Your task to perform on an android device: Search for razer kraken on newegg, select the first entry, add it to the cart, then select checkout. Image 0: 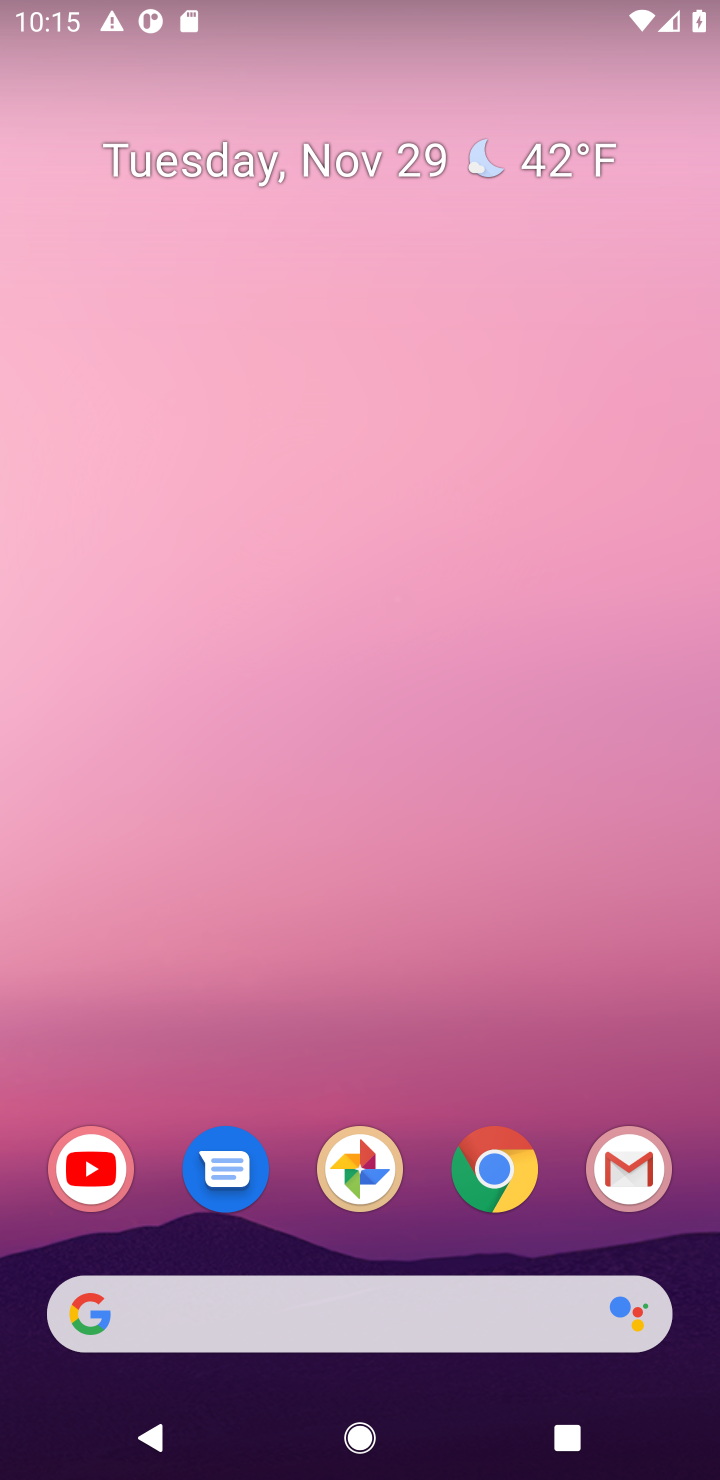
Step 0: click (324, 1324)
Your task to perform on an android device: Search for razer kraken on newegg, select the first entry, add it to the cart, then select checkout. Image 1: 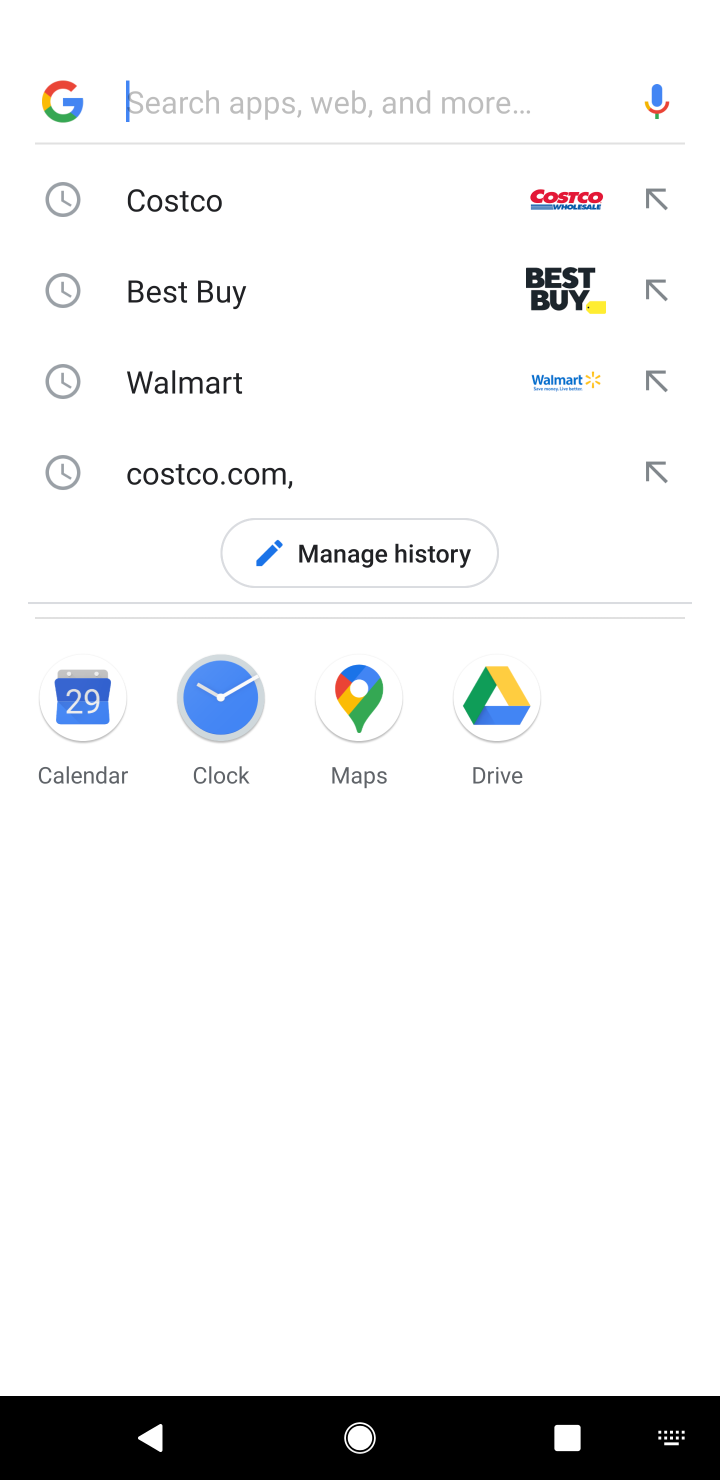
Step 1: type "newegg.com"
Your task to perform on an android device: Search for razer kraken on newegg, select the first entry, add it to the cart, then select checkout. Image 2: 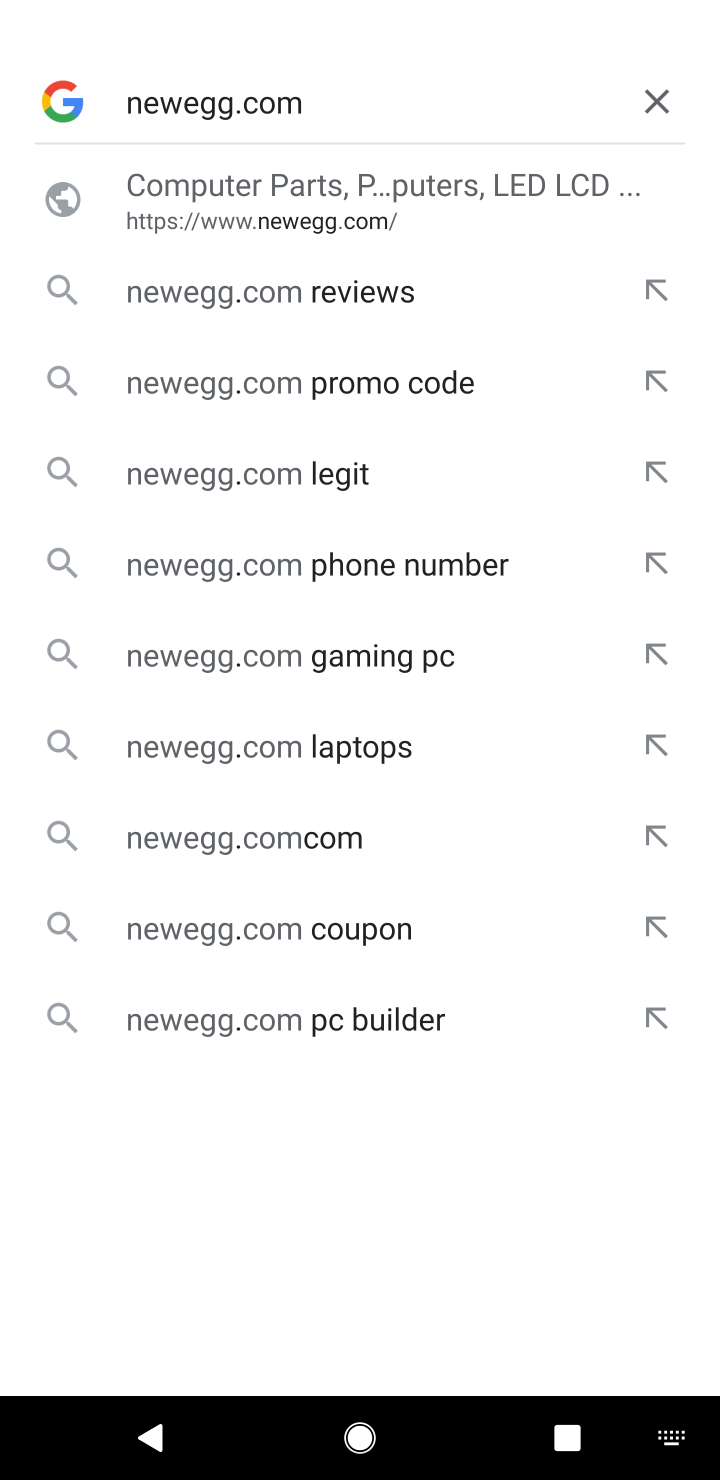
Step 2: click (255, 241)
Your task to perform on an android device: Search for razer kraken on newegg, select the first entry, add it to the cart, then select checkout. Image 3: 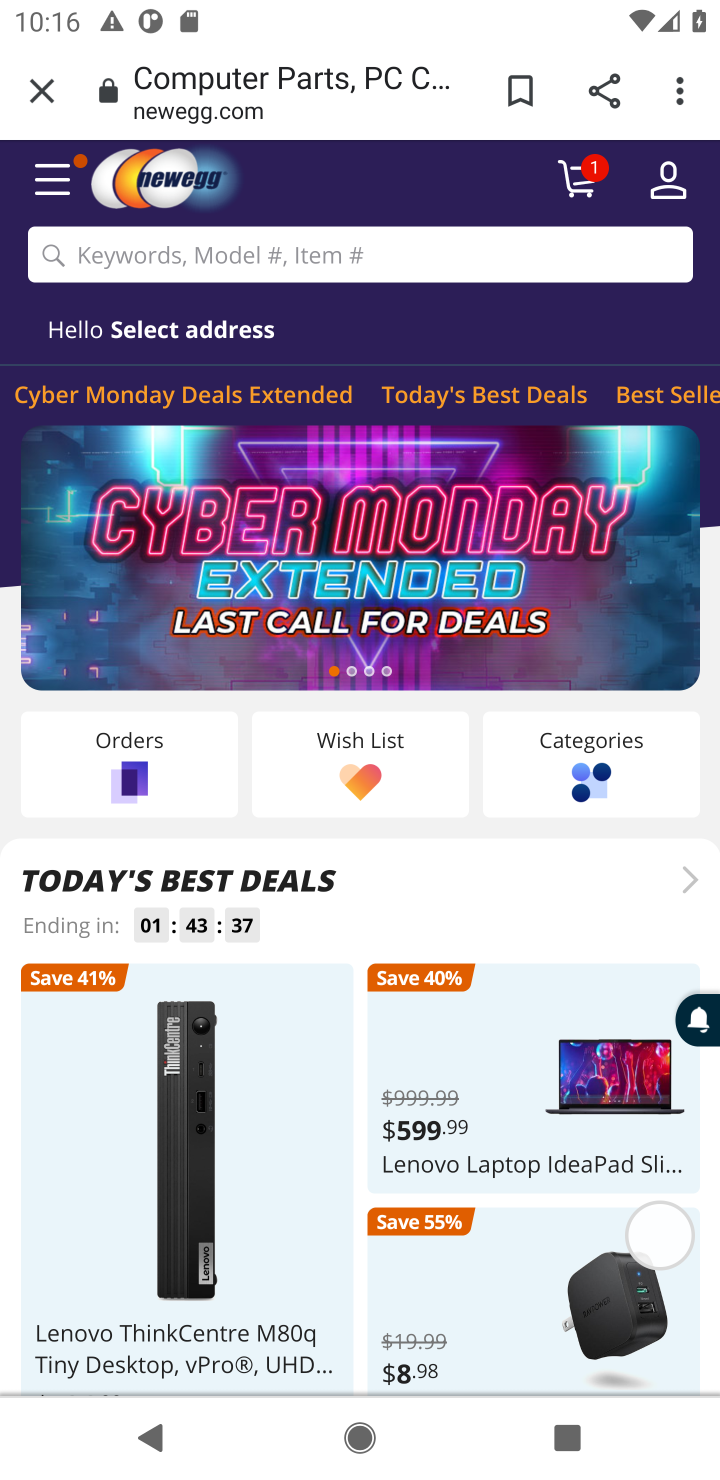
Step 3: click (255, 241)
Your task to perform on an android device: Search for razer kraken on newegg, select the first entry, add it to the cart, then select checkout. Image 4: 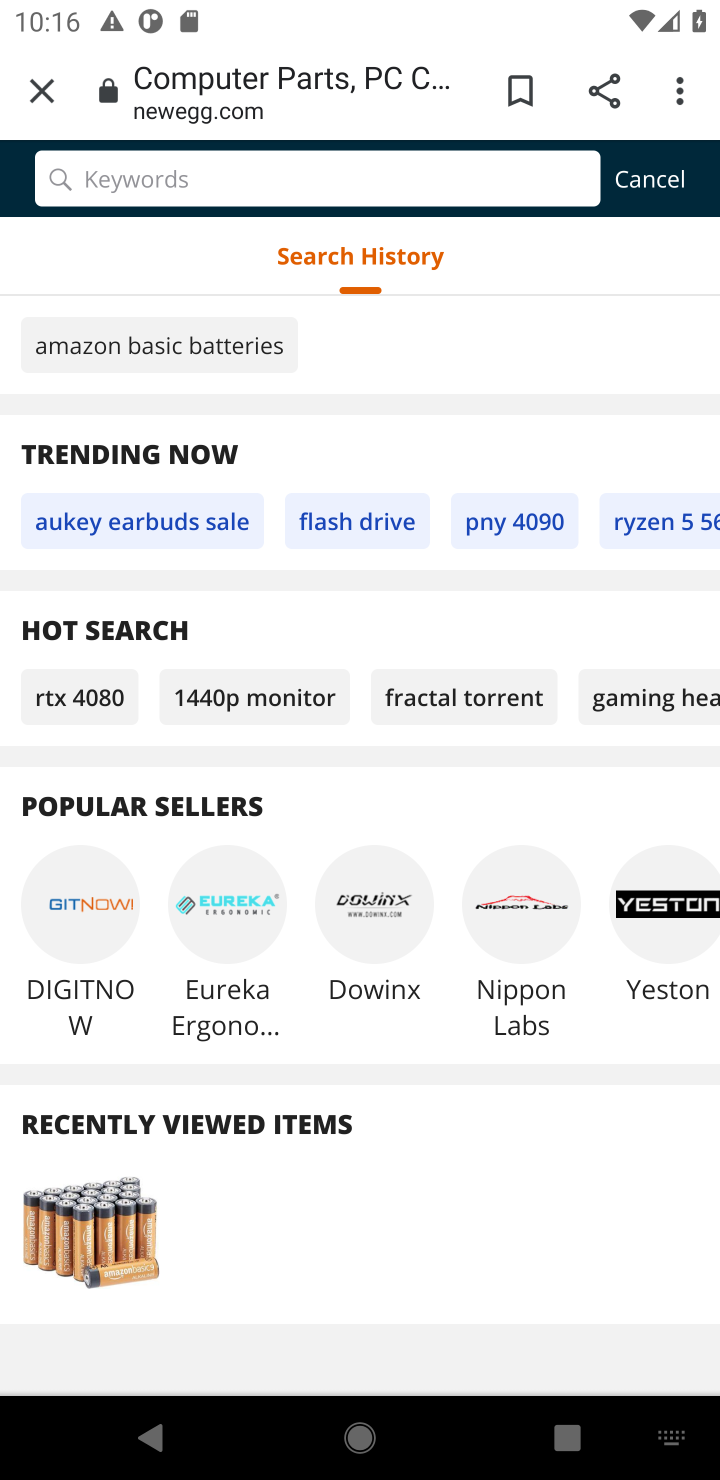
Step 4: type "razer karken"
Your task to perform on an android device: Search for razer kraken on newegg, select the first entry, add it to the cart, then select checkout. Image 5: 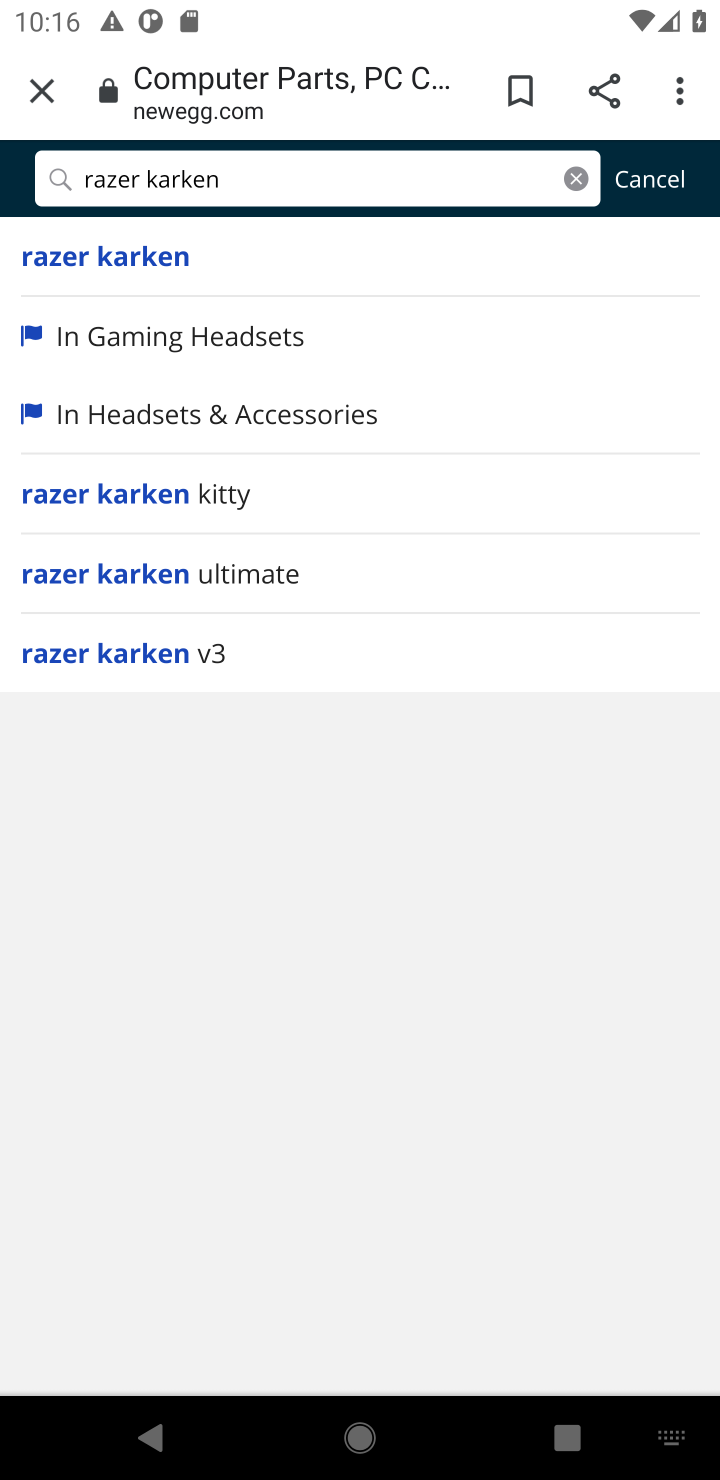
Step 5: click (157, 263)
Your task to perform on an android device: Search for razer kraken on newegg, select the first entry, add it to the cart, then select checkout. Image 6: 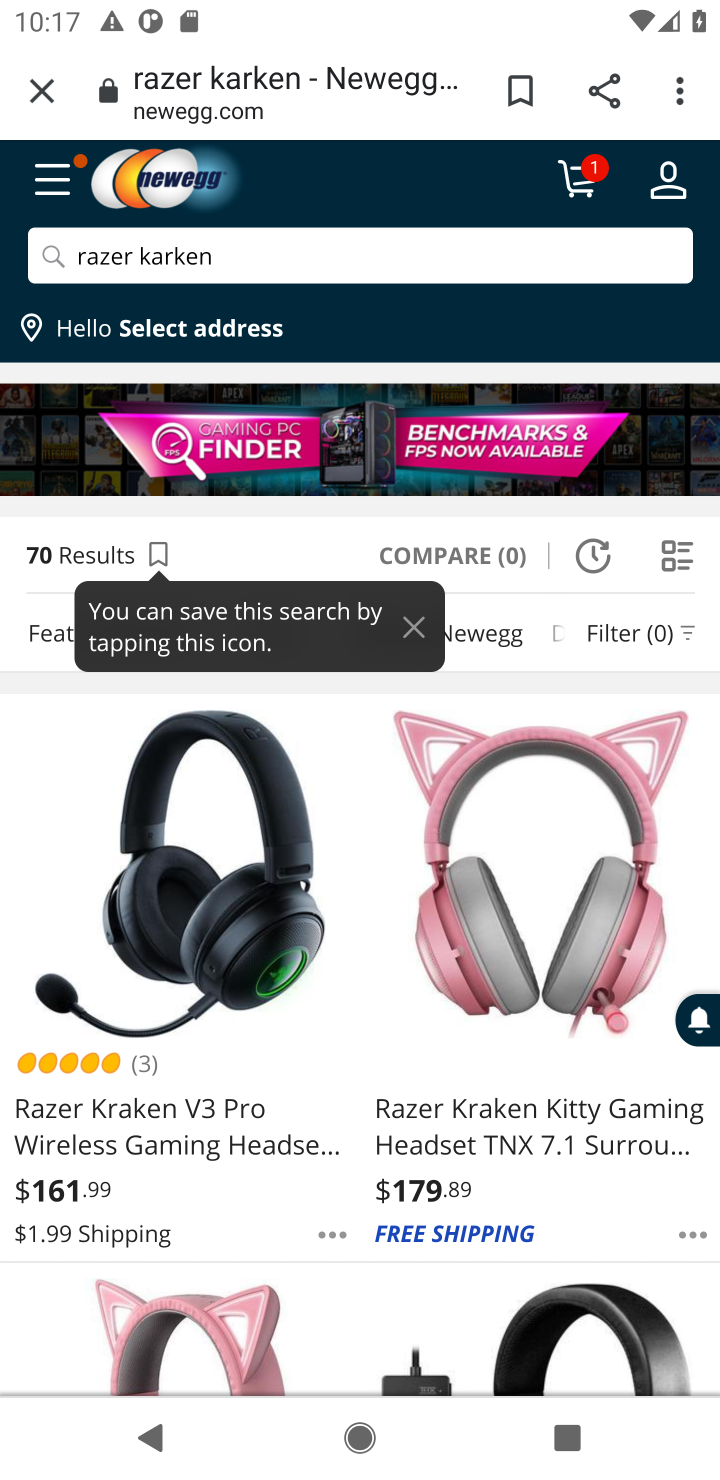
Step 6: task complete